Your task to perform on an android device: turn on improve location accuracy Image 0: 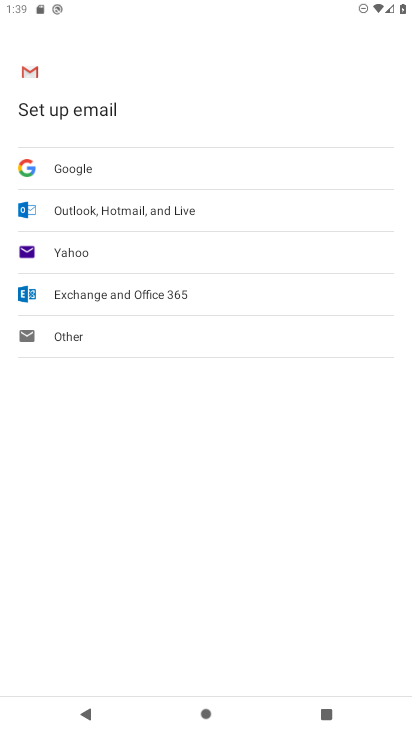
Step 0: press home button
Your task to perform on an android device: turn on improve location accuracy Image 1: 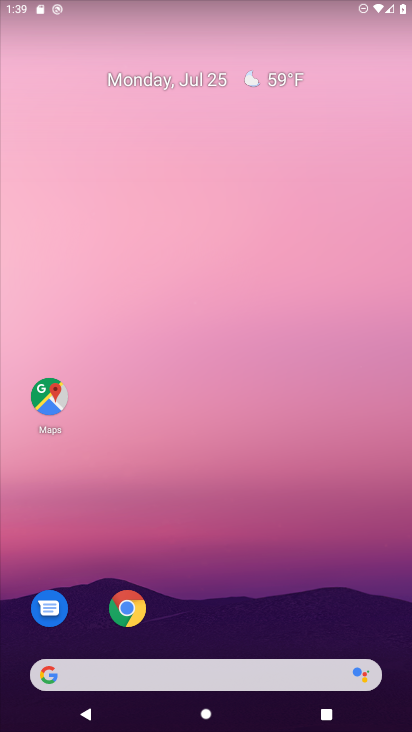
Step 1: drag from (299, 616) to (274, 141)
Your task to perform on an android device: turn on improve location accuracy Image 2: 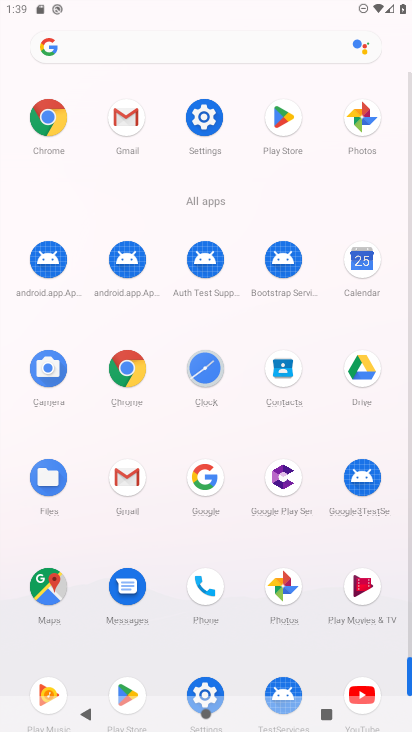
Step 2: click (204, 679)
Your task to perform on an android device: turn on improve location accuracy Image 3: 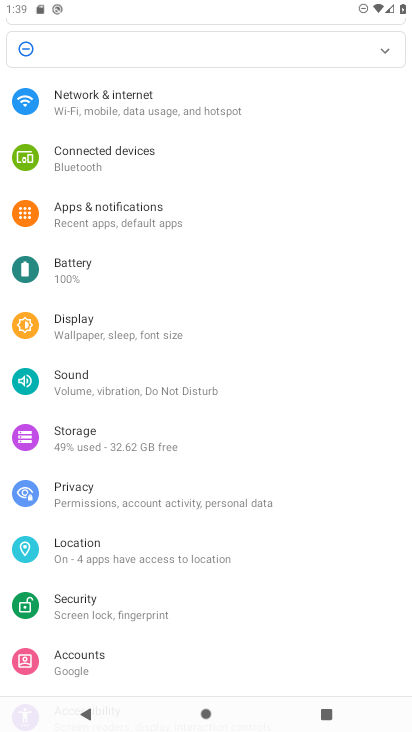
Step 3: click (75, 547)
Your task to perform on an android device: turn on improve location accuracy Image 4: 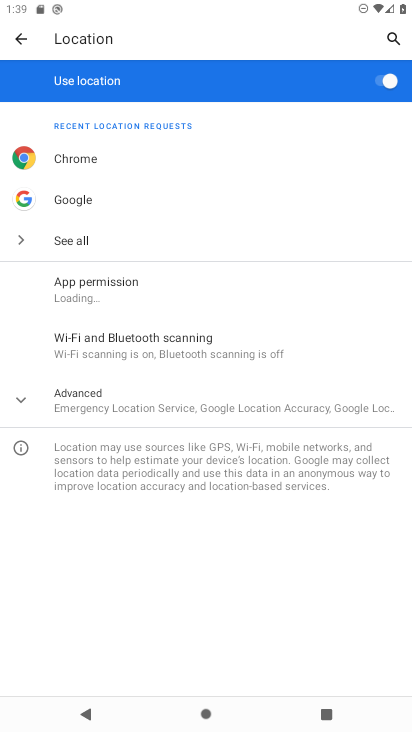
Step 4: click (17, 405)
Your task to perform on an android device: turn on improve location accuracy Image 5: 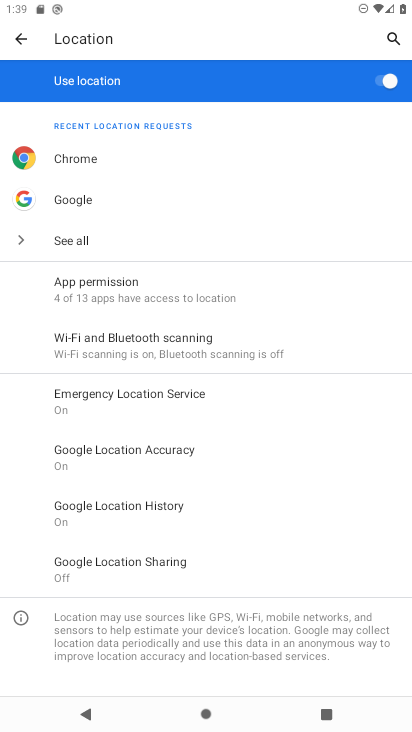
Step 5: click (85, 450)
Your task to perform on an android device: turn on improve location accuracy Image 6: 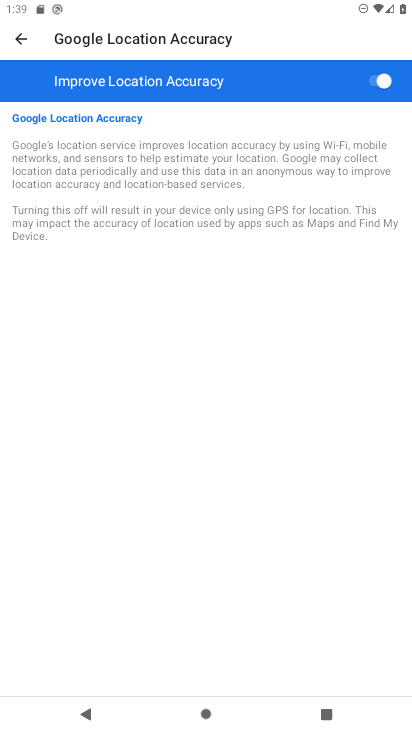
Step 6: task complete